Your task to perform on an android device: Go to Google Image 0: 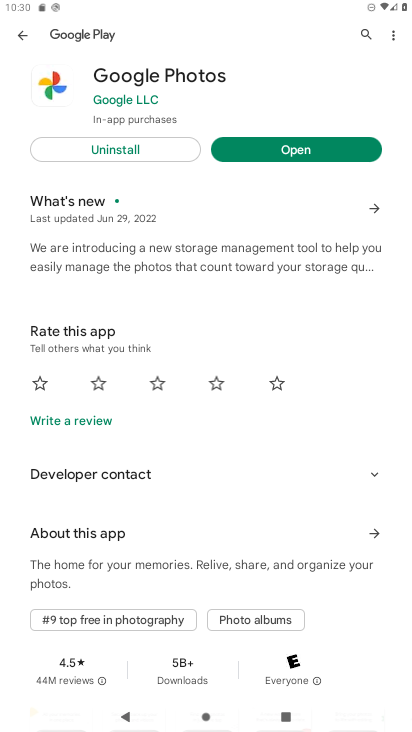
Step 0: press home button
Your task to perform on an android device: Go to Google Image 1: 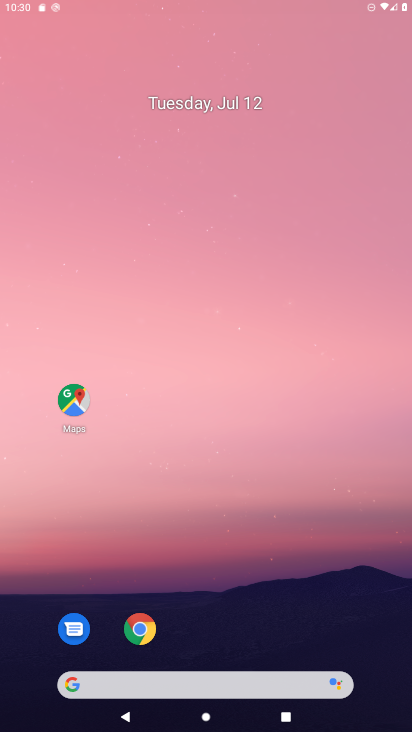
Step 1: drag from (292, 671) to (261, 16)
Your task to perform on an android device: Go to Google Image 2: 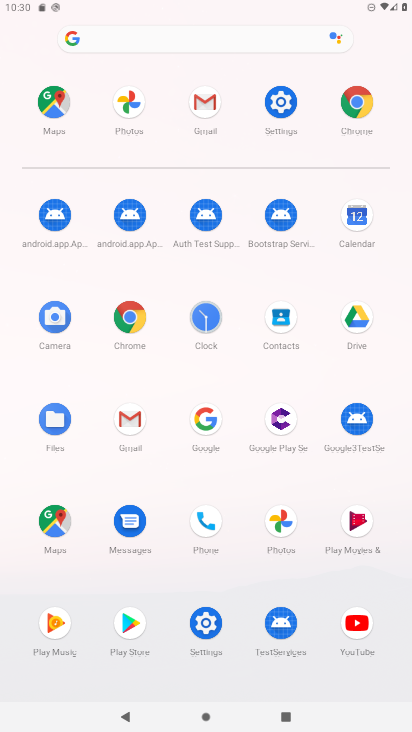
Step 2: click (205, 417)
Your task to perform on an android device: Go to Google Image 3: 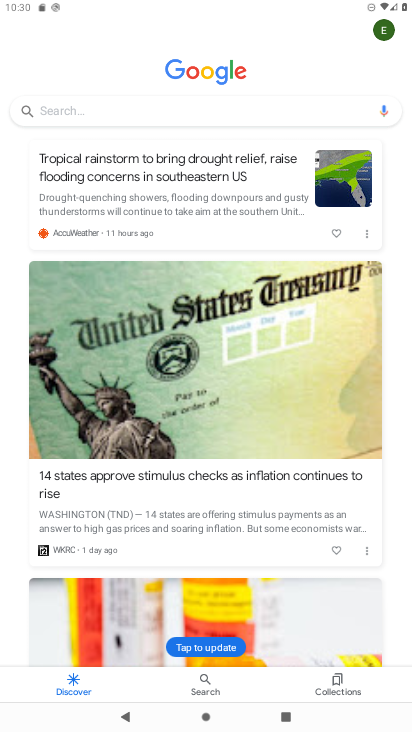
Step 3: task complete